Your task to perform on an android device: Open the phone app and click the voicemail tab. Image 0: 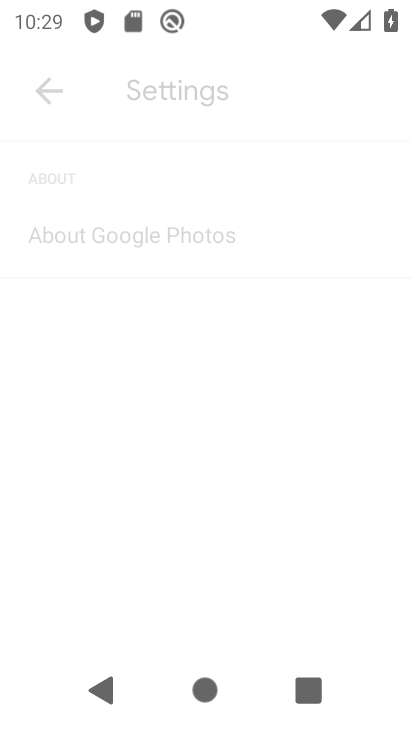
Step 0: drag from (210, 540) to (206, 133)
Your task to perform on an android device: Open the phone app and click the voicemail tab. Image 1: 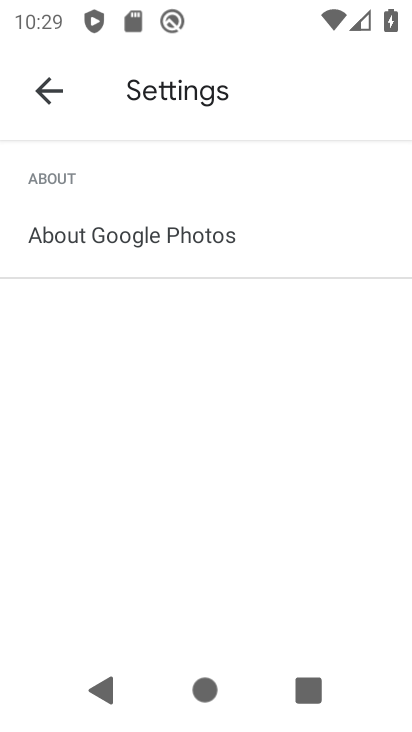
Step 1: press home button
Your task to perform on an android device: Open the phone app and click the voicemail tab. Image 2: 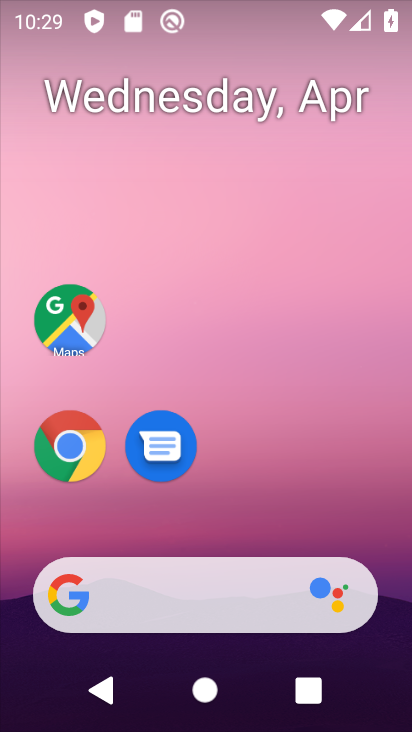
Step 2: drag from (194, 550) to (213, 42)
Your task to perform on an android device: Open the phone app and click the voicemail tab. Image 3: 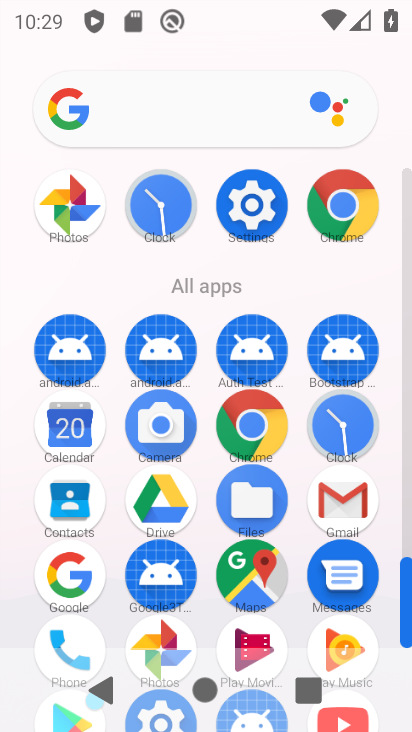
Step 3: click (62, 634)
Your task to perform on an android device: Open the phone app and click the voicemail tab. Image 4: 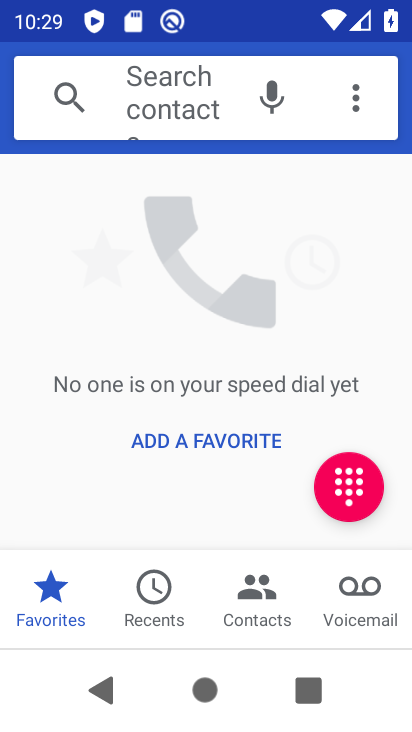
Step 4: click (326, 591)
Your task to perform on an android device: Open the phone app and click the voicemail tab. Image 5: 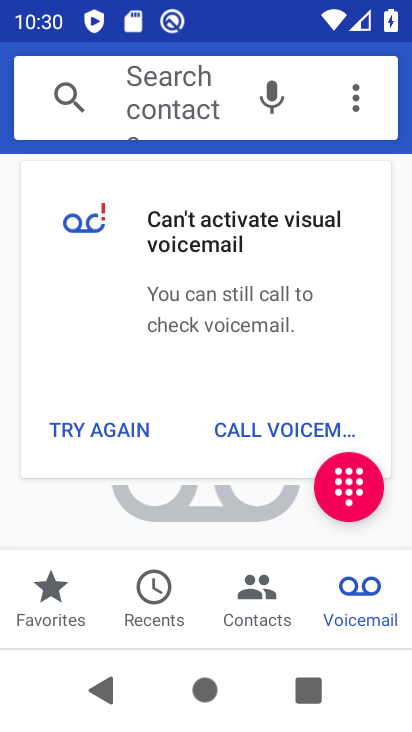
Step 5: task complete